Your task to perform on an android device: open the mobile data screen to see how much data has been used Image 0: 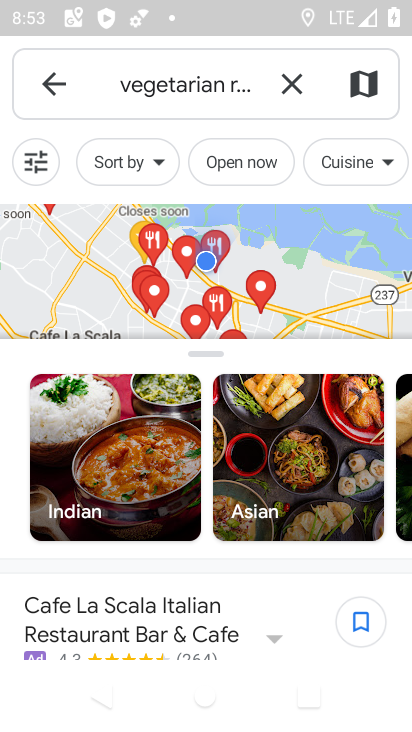
Step 0: press home button
Your task to perform on an android device: open the mobile data screen to see how much data has been used Image 1: 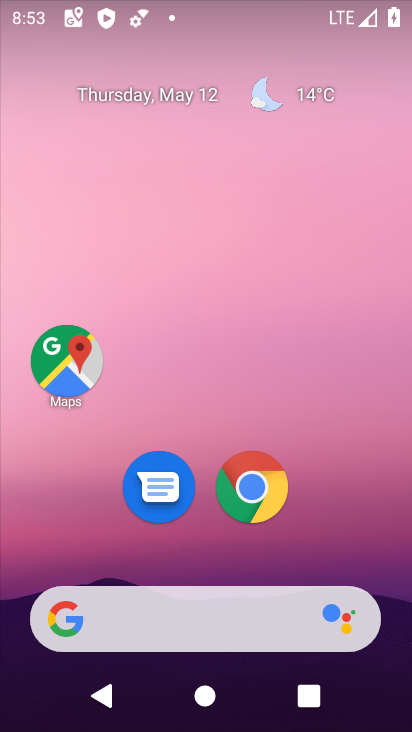
Step 1: drag from (26, 486) to (230, 145)
Your task to perform on an android device: open the mobile data screen to see how much data has been used Image 2: 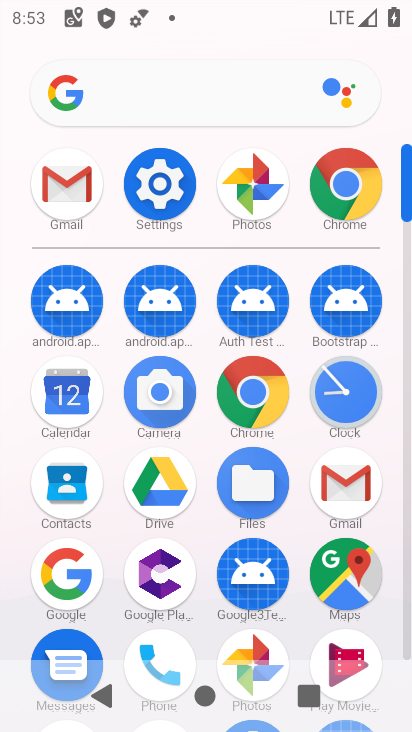
Step 2: click (179, 186)
Your task to perform on an android device: open the mobile data screen to see how much data has been used Image 3: 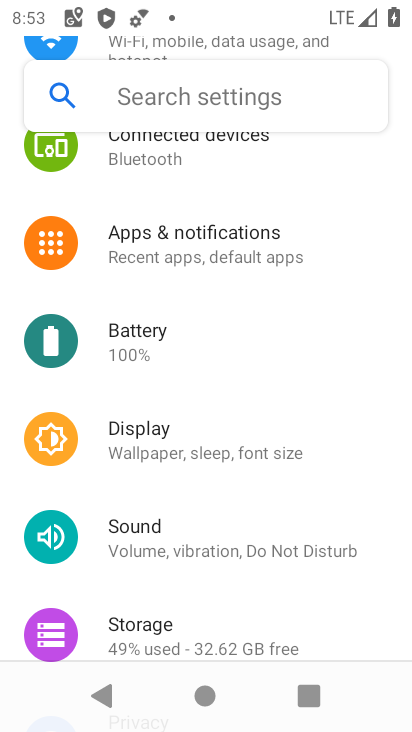
Step 3: drag from (179, 186) to (142, 570)
Your task to perform on an android device: open the mobile data screen to see how much data has been used Image 4: 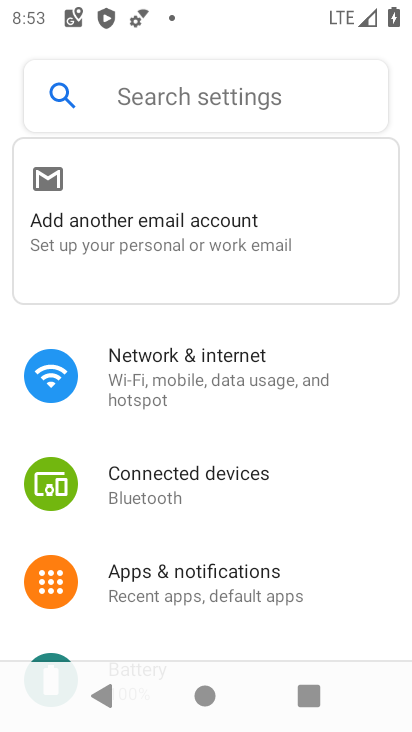
Step 4: click (162, 366)
Your task to perform on an android device: open the mobile data screen to see how much data has been used Image 5: 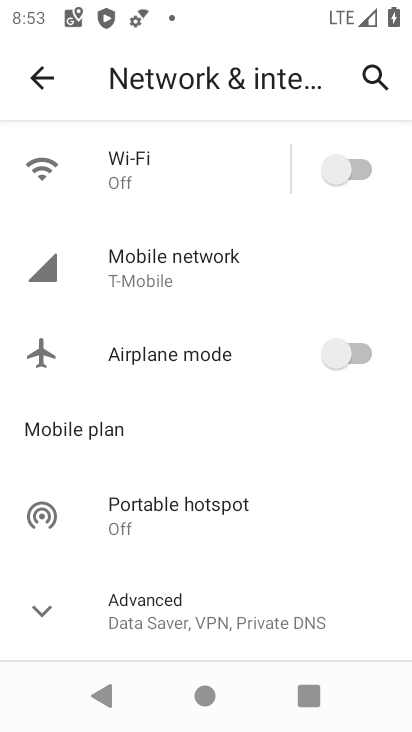
Step 5: click (168, 263)
Your task to perform on an android device: open the mobile data screen to see how much data has been used Image 6: 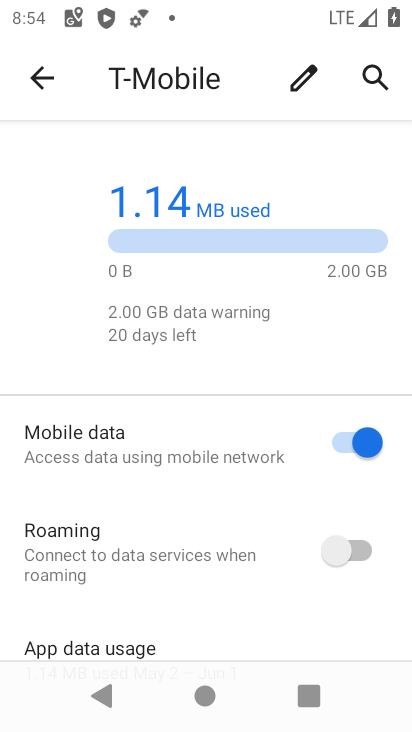
Step 6: task complete